Your task to perform on an android device: Go to battery settings Image 0: 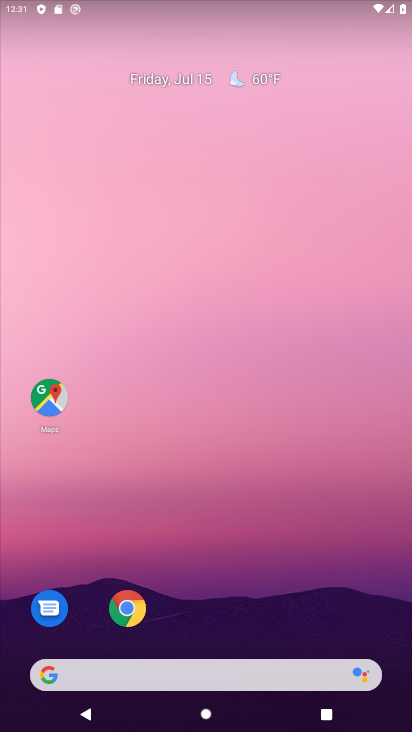
Step 0: drag from (256, 504) to (264, 90)
Your task to perform on an android device: Go to battery settings Image 1: 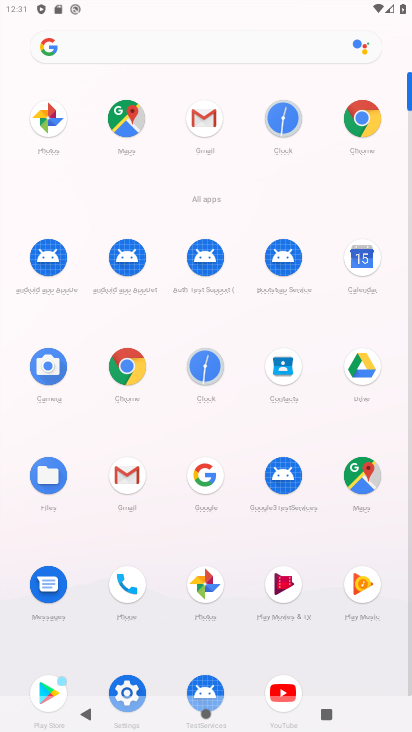
Step 1: click (135, 684)
Your task to perform on an android device: Go to battery settings Image 2: 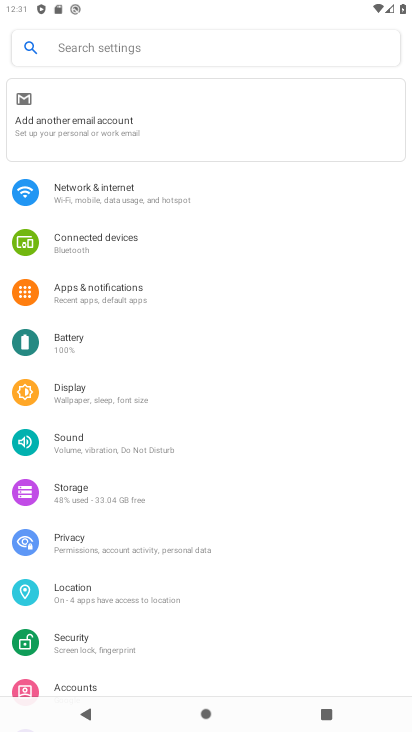
Step 2: click (63, 343)
Your task to perform on an android device: Go to battery settings Image 3: 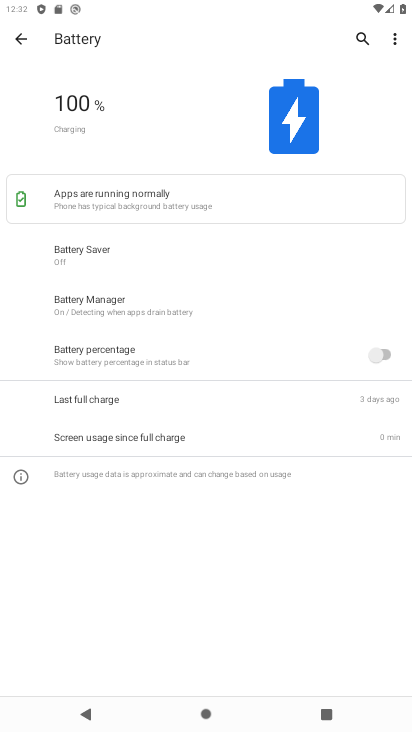
Step 3: task complete